Your task to perform on an android device: Turn off the flashlight Image 0: 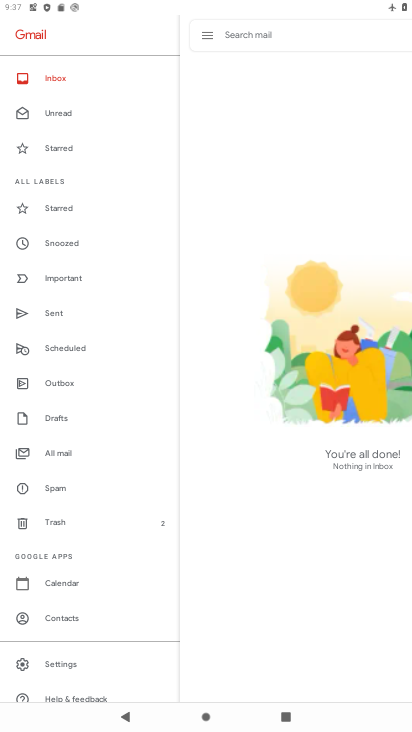
Step 0: press home button
Your task to perform on an android device: Turn off the flashlight Image 1: 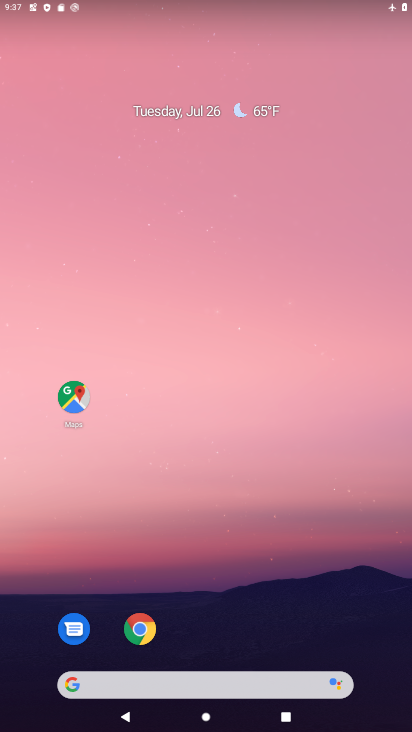
Step 1: drag from (302, 572) to (261, 121)
Your task to perform on an android device: Turn off the flashlight Image 2: 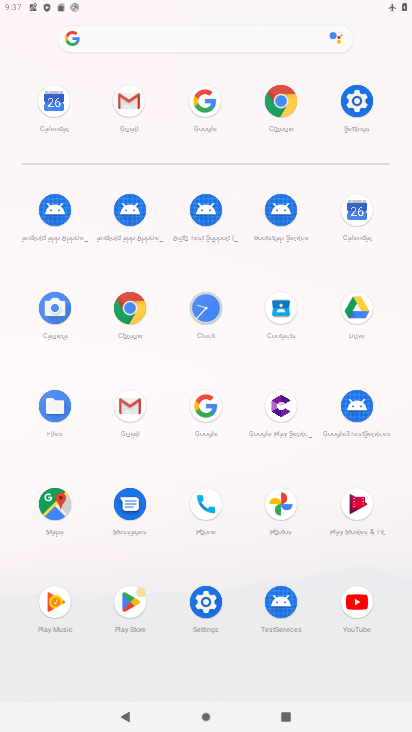
Step 2: click (351, 93)
Your task to perform on an android device: Turn off the flashlight Image 3: 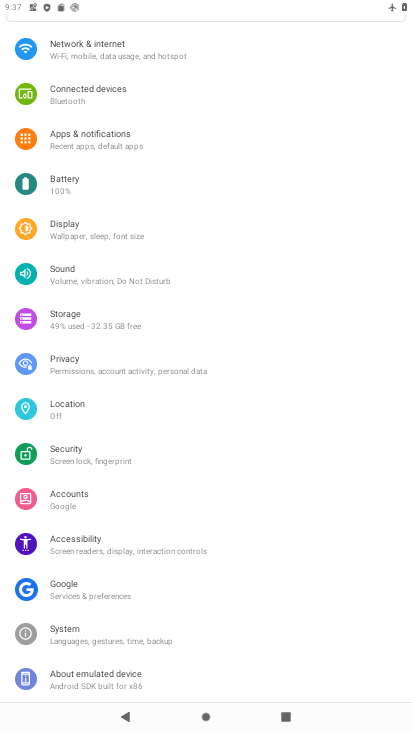
Step 3: click (131, 230)
Your task to perform on an android device: Turn off the flashlight Image 4: 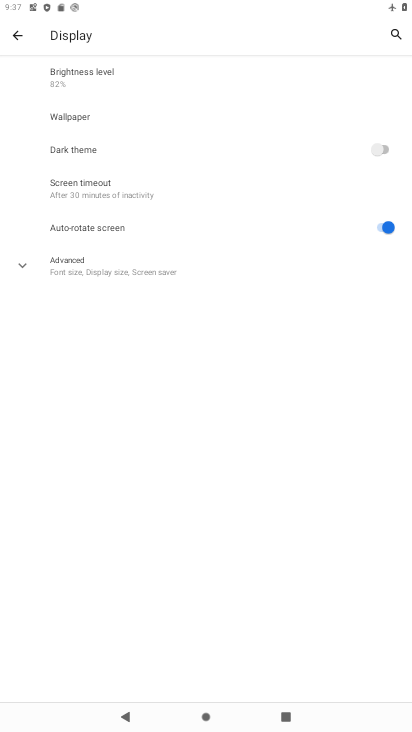
Step 4: click (129, 226)
Your task to perform on an android device: Turn off the flashlight Image 5: 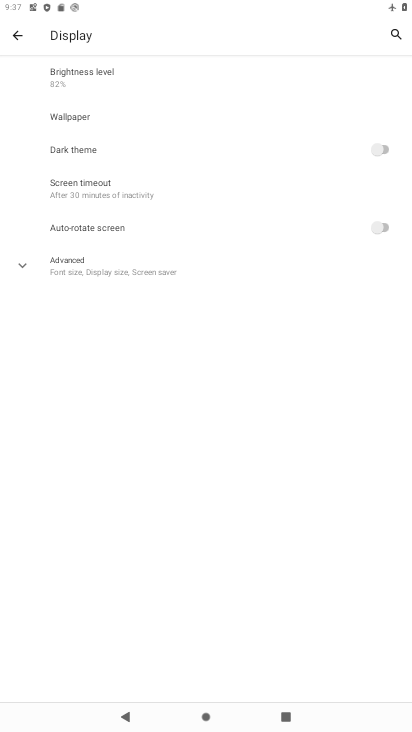
Step 5: click (129, 226)
Your task to perform on an android device: Turn off the flashlight Image 6: 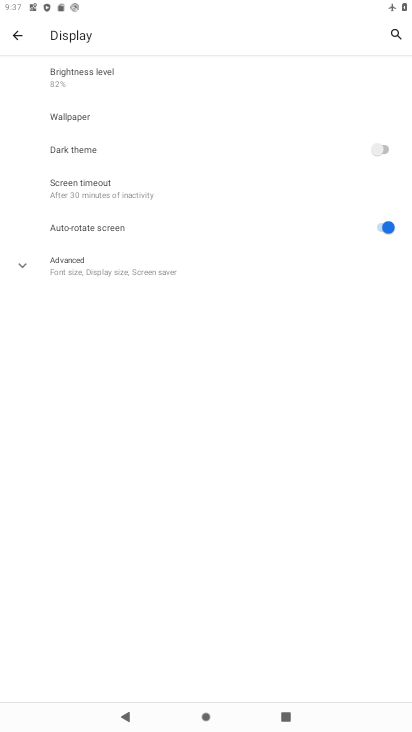
Step 6: click (107, 192)
Your task to perform on an android device: Turn off the flashlight Image 7: 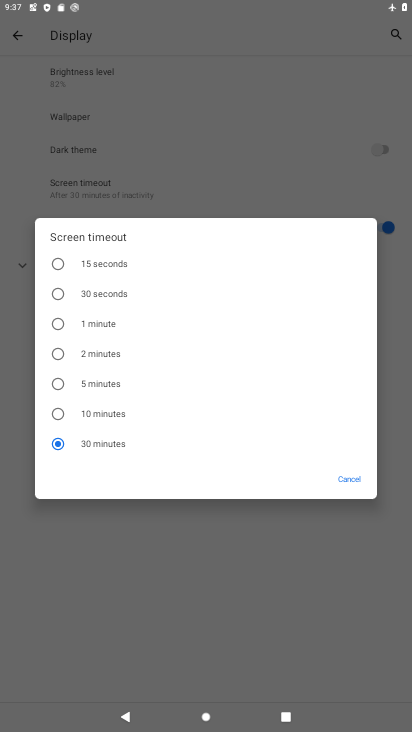
Step 7: task complete